Your task to perform on an android device: What's the weather going to be tomorrow? Image 0: 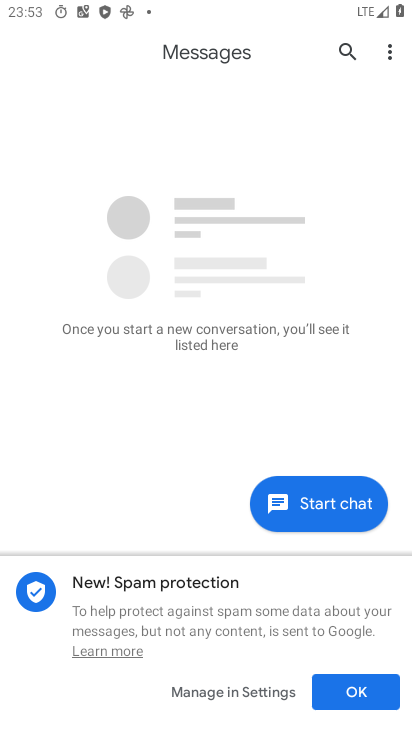
Step 0: press home button
Your task to perform on an android device: What's the weather going to be tomorrow? Image 1: 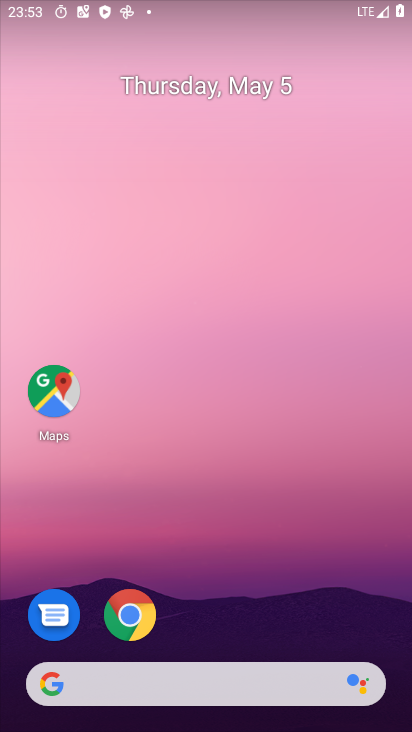
Step 1: drag from (281, 363) to (311, 72)
Your task to perform on an android device: What's the weather going to be tomorrow? Image 2: 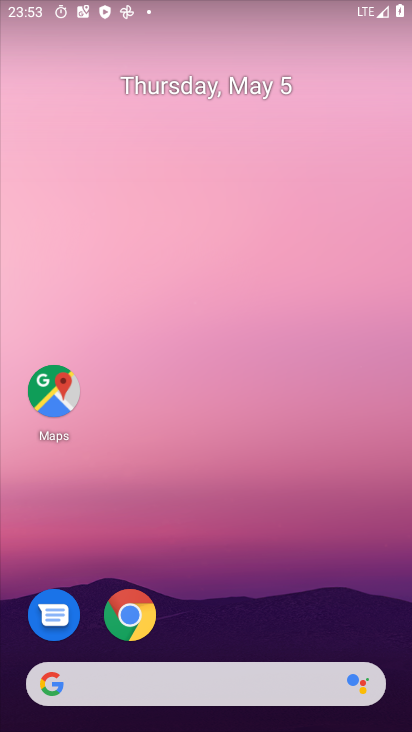
Step 2: drag from (267, 613) to (284, 97)
Your task to perform on an android device: What's the weather going to be tomorrow? Image 3: 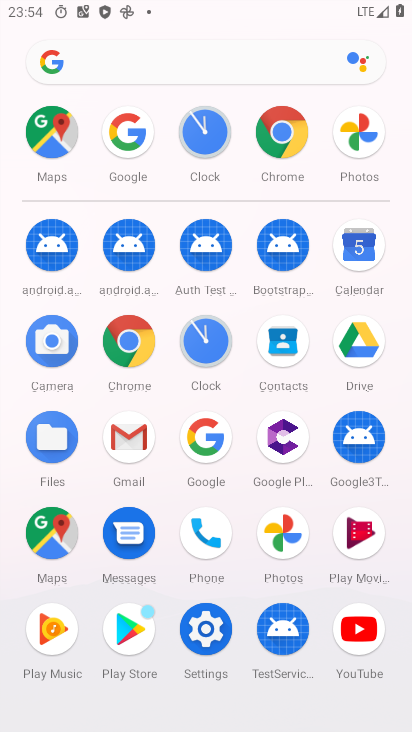
Step 3: click (130, 136)
Your task to perform on an android device: What's the weather going to be tomorrow? Image 4: 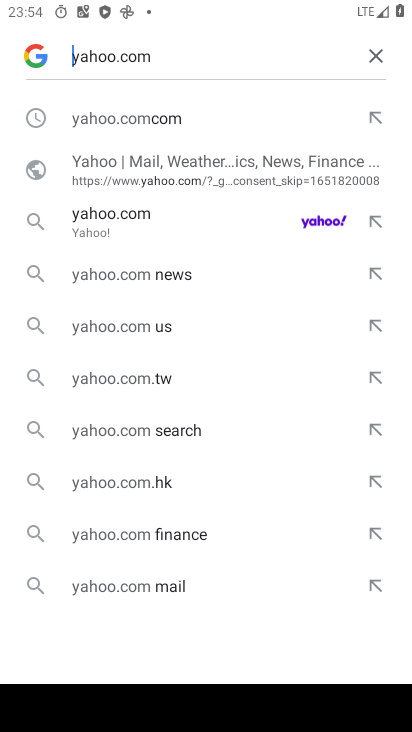
Step 4: click (244, 61)
Your task to perform on an android device: What's the weather going to be tomorrow? Image 5: 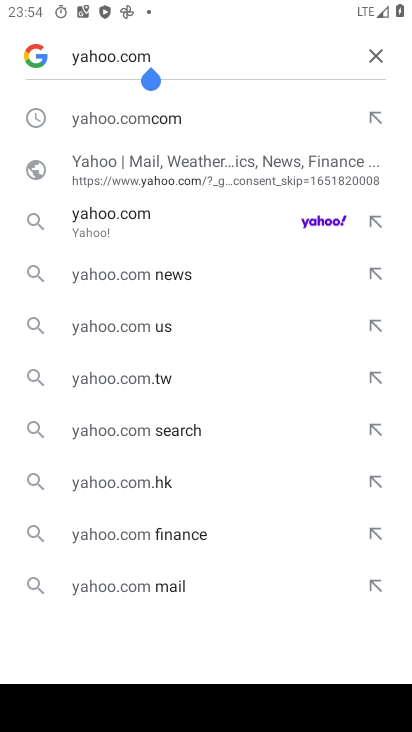
Step 5: click (393, 53)
Your task to perform on an android device: What's the weather going to be tomorrow? Image 6: 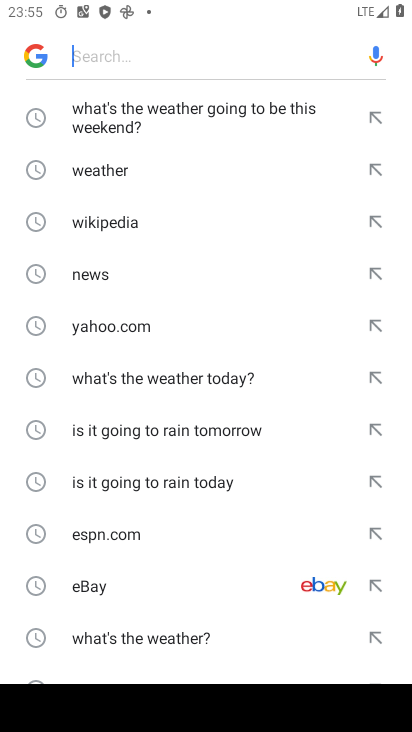
Step 6: type "whats weather going to be tomorrow"
Your task to perform on an android device: What's the weather going to be tomorrow? Image 7: 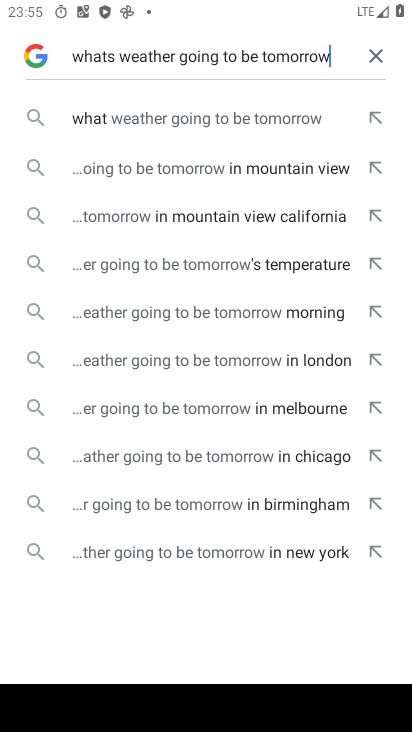
Step 7: click (199, 119)
Your task to perform on an android device: What's the weather going to be tomorrow? Image 8: 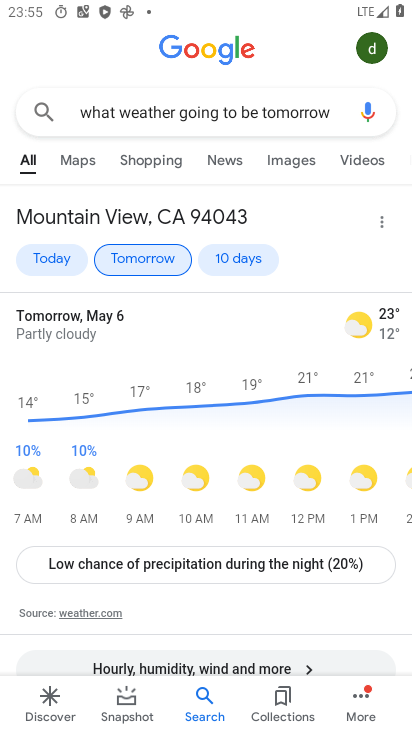
Step 8: task complete